Your task to perform on an android device: change the upload size in google photos Image 0: 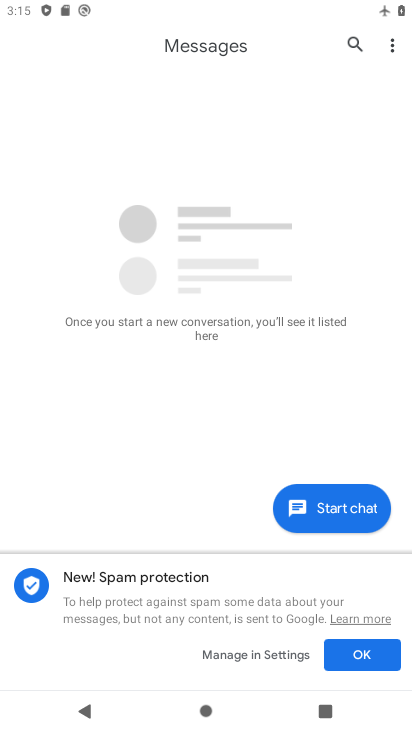
Step 0: press home button
Your task to perform on an android device: change the upload size in google photos Image 1: 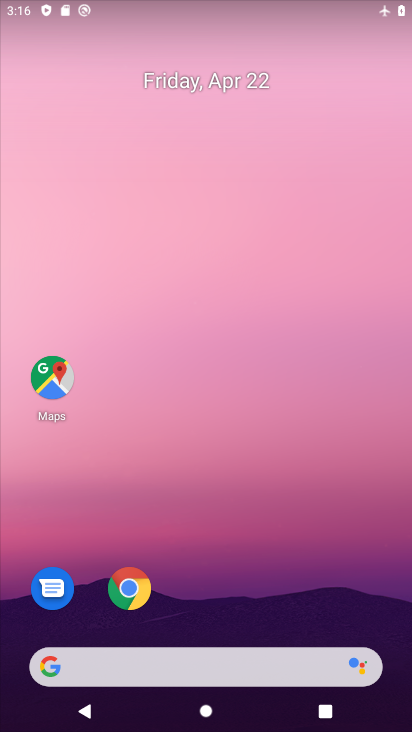
Step 1: drag from (196, 623) to (237, 0)
Your task to perform on an android device: change the upload size in google photos Image 2: 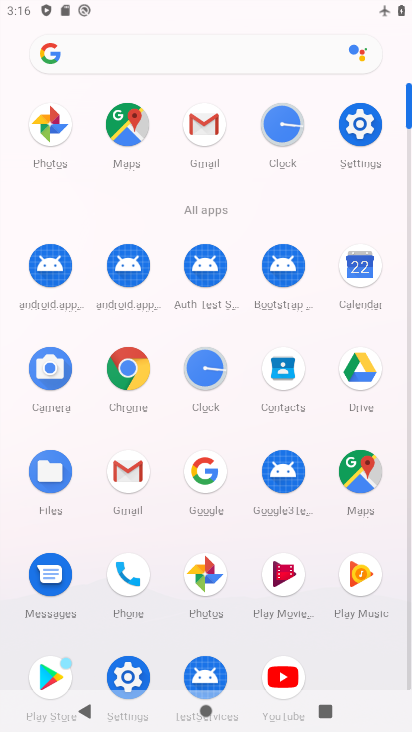
Step 2: click (55, 131)
Your task to perform on an android device: change the upload size in google photos Image 3: 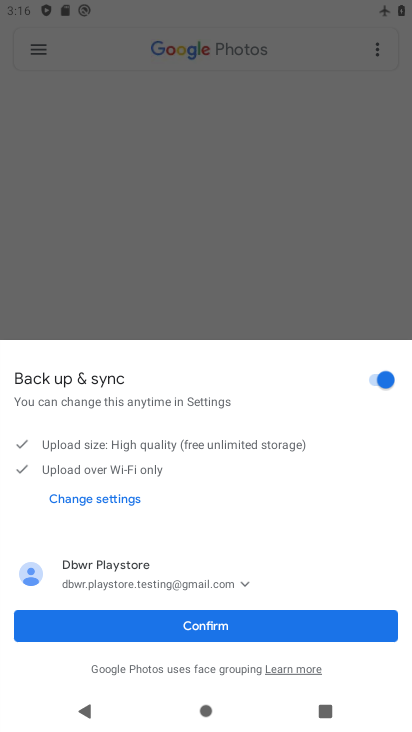
Step 3: click (240, 628)
Your task to perform on an android device: change the upload size in google photos Image 4: 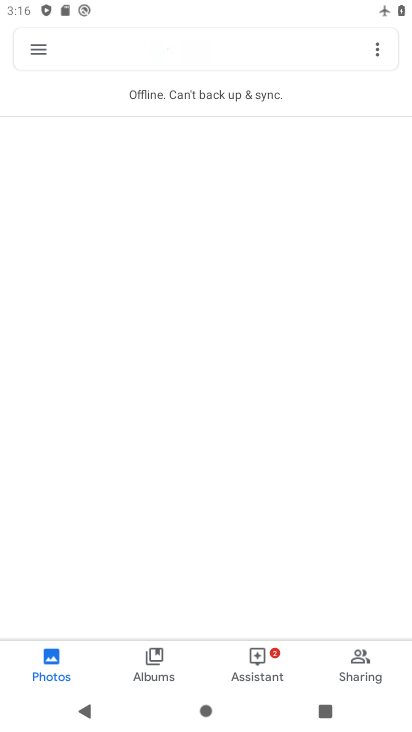
Step 4: click (34, 52)
Your task to perform on an android device: change the upload size in google photos Image 5: 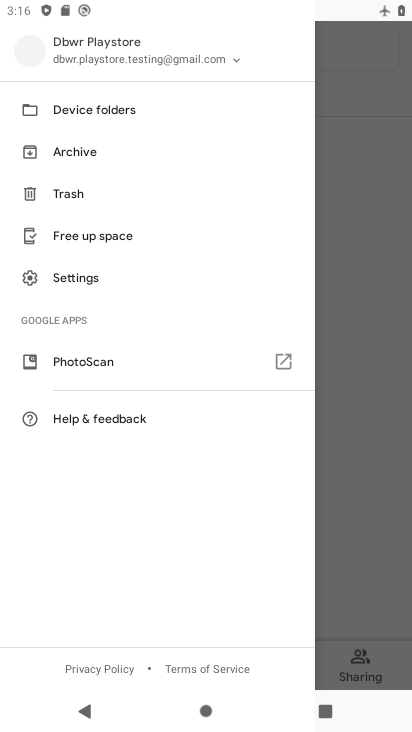
Step 5: click (79, 276)
Your task to perform on an android device: change the upload size in google photos Image 6: 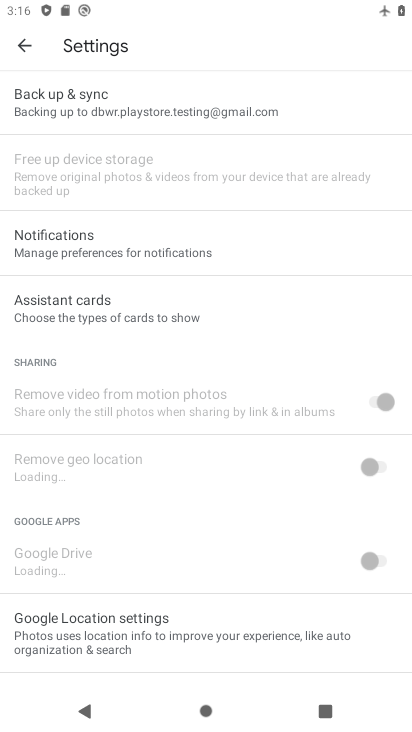
Step 6: click (89, 105)
Your task to perform on an android device: change the upload size in google photos Image 7: 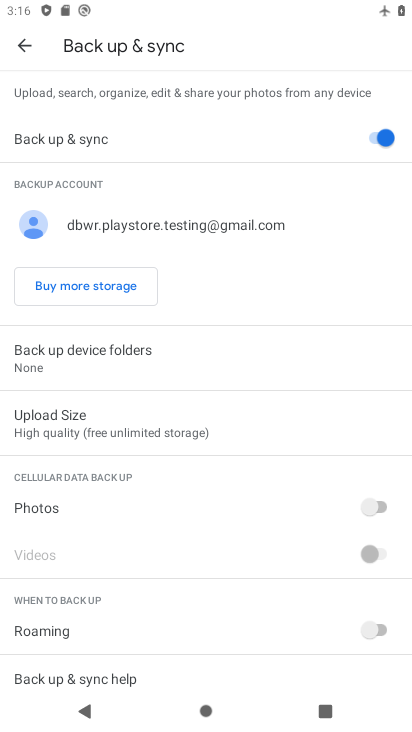
Step 7: click (91, 417)
Your task to perform on an android device: change the upload size in google photos Image 8: 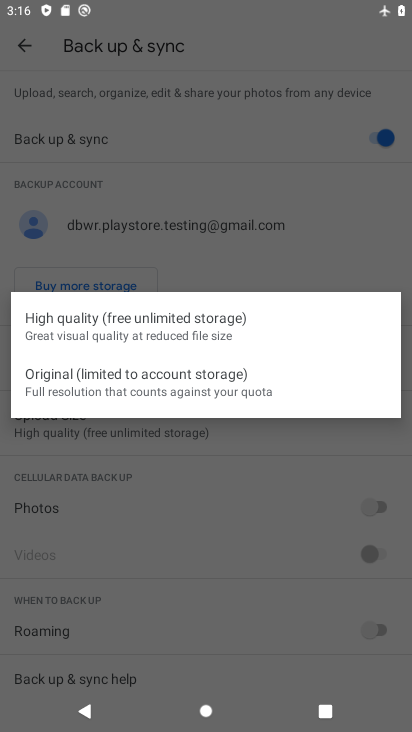
Step 8: click (93, 370)
Your task to perform on an android device: change the upload size in google photos Image 9: 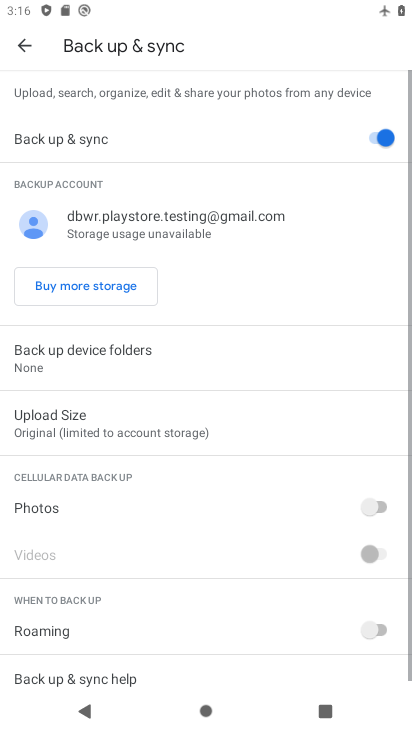
Step 9: task complete